Your task to perform on an android device: allow notifications from all sites in the chrome app Image 0: 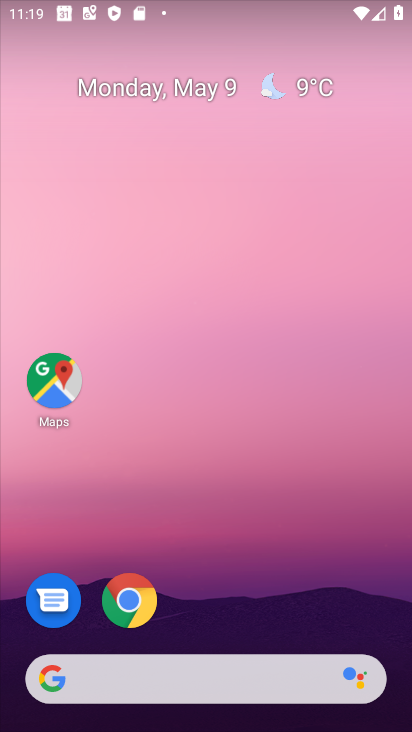
Step 0: press home button
Your task to perform on an android device: allow notifications from all sites in the chrome app Image 1: 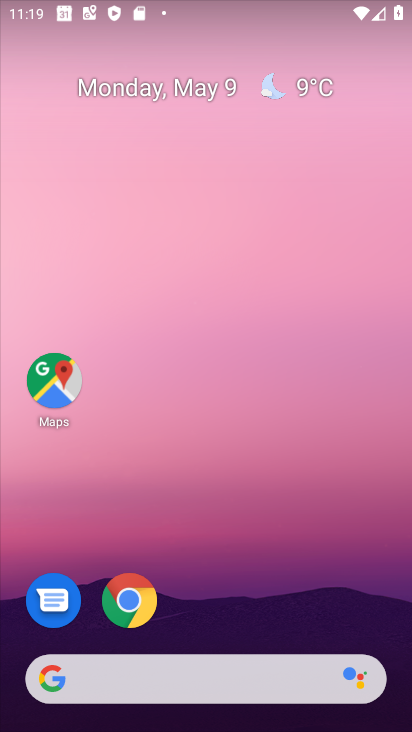
Step 1: drag from (284, 644) to (305, 184)
Your task to perform on an android device: allow notifications from all sites in the chrome app Image 2: 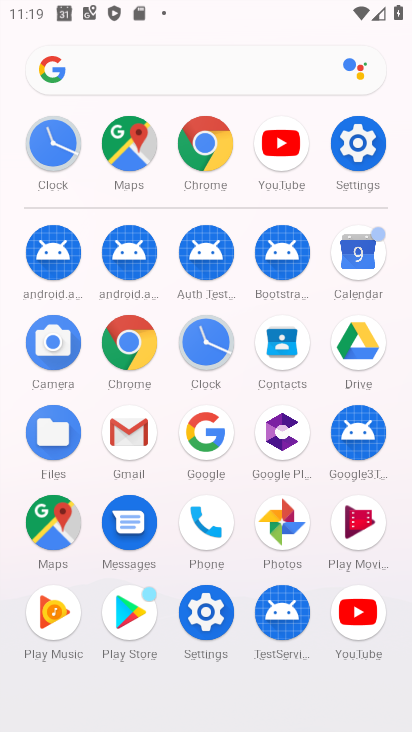
Step 2: click (129, 354)
Your task to perform on an android device: allow notifications from all sites in the chrome app Image 3: 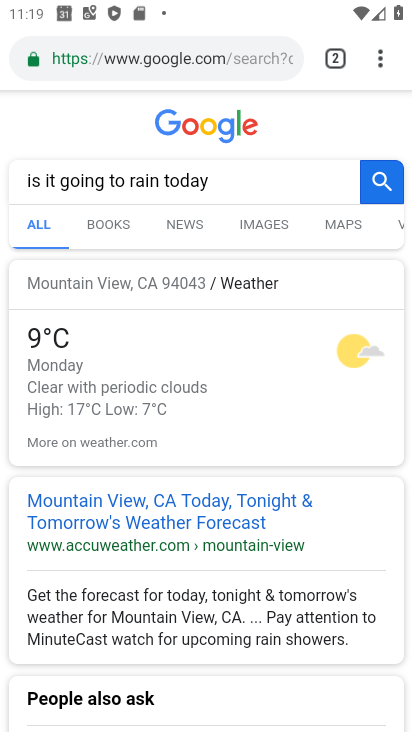
Step 3: drag from (397, 73) to (261, 635)
Your task to perform on an android device: allow notifications from all sites in the chrome app Image 4: 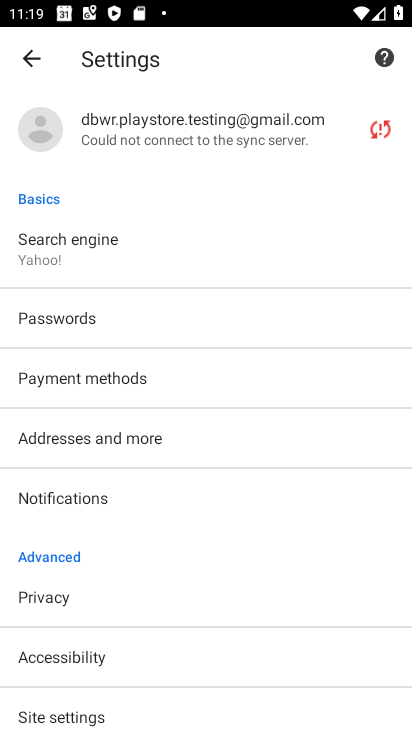
Step 4: click (66, 713)
Your task to perform on an android device: allow notifications from all sites in the chrome app Image 5: 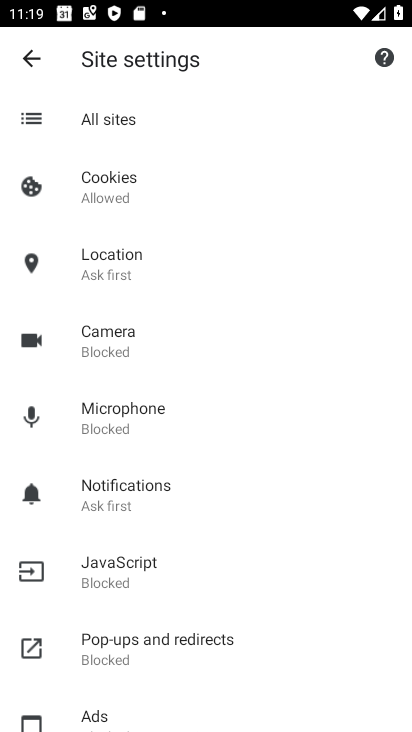
Step 5: click (137, 126)
Your task to perform on an android device: allow notifications from all sites in the chrome app Image 6: 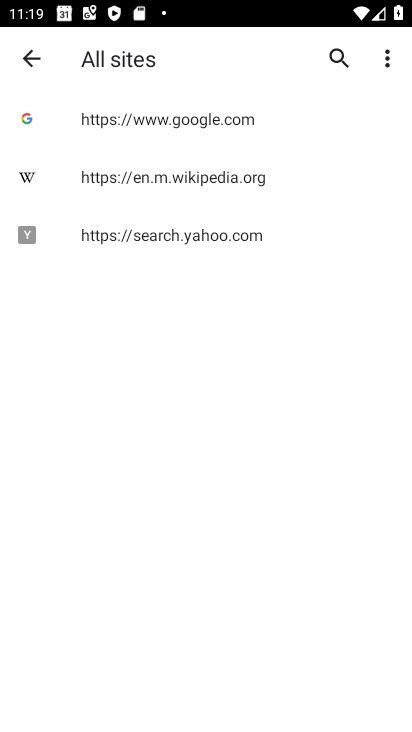
Step 6: click (149, 128)
Your task to perform on an android device: allow notifications from all sites in the chrome app Image 7: 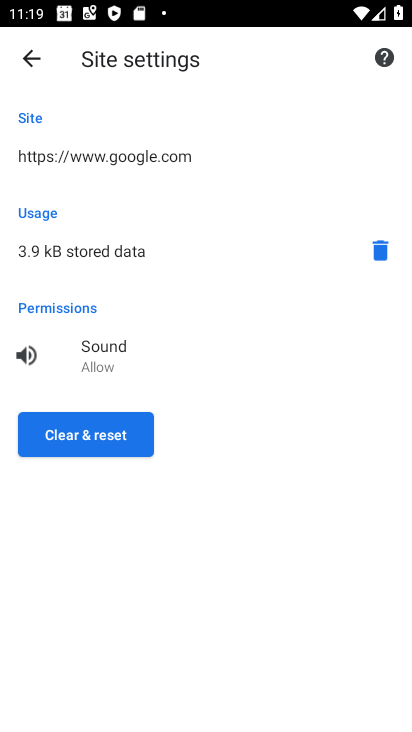
Step 7: task complete